Your task to perform on an android device: WHat are the new products by Samsung on eBay? Image 0: 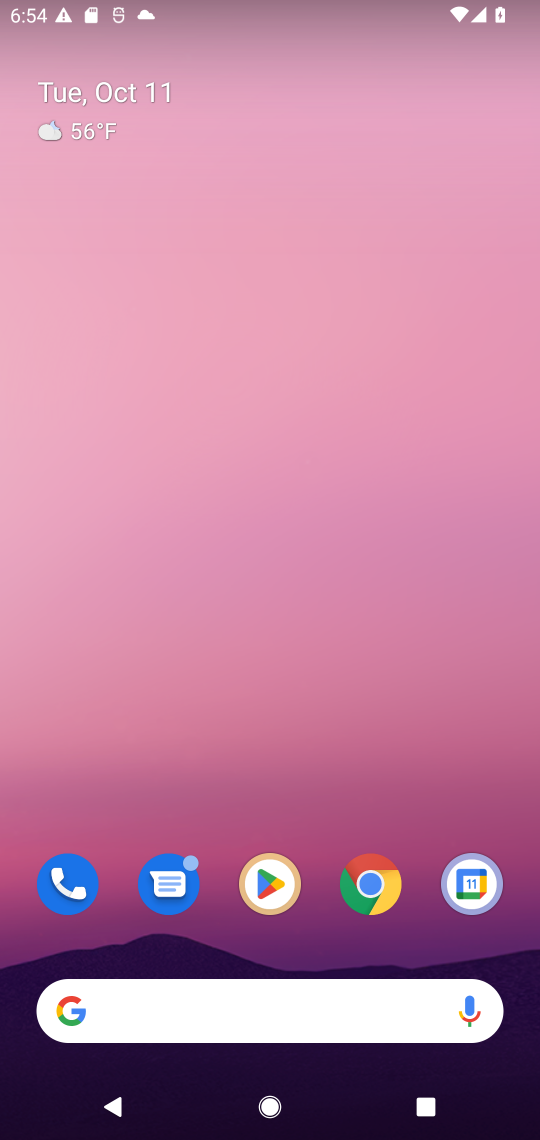
Step 0: drag from (328, 975) to (535, 334)
Your task to perform on an android device: WHat are the new products by Samsung on eBay? Image 1: 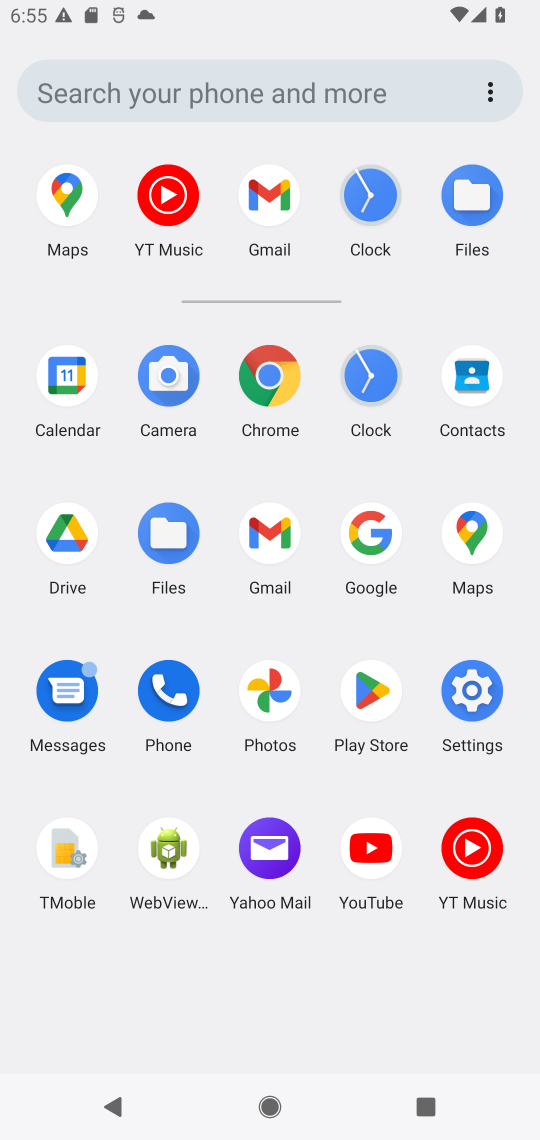
Step 1: click (366, 528)
Your task to perform on an android device: WHat are the new products by Samsung on eBay? Image 2: 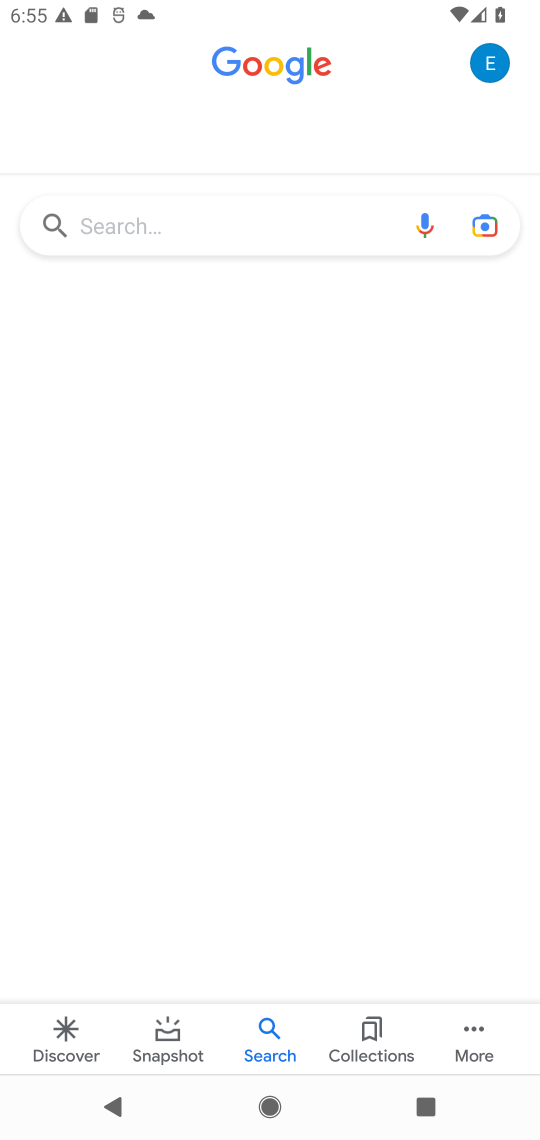
Step 2: click (269, 226)
Your task to perform on an android device: WHat are the new products by Samsung on eBay? Image 3: 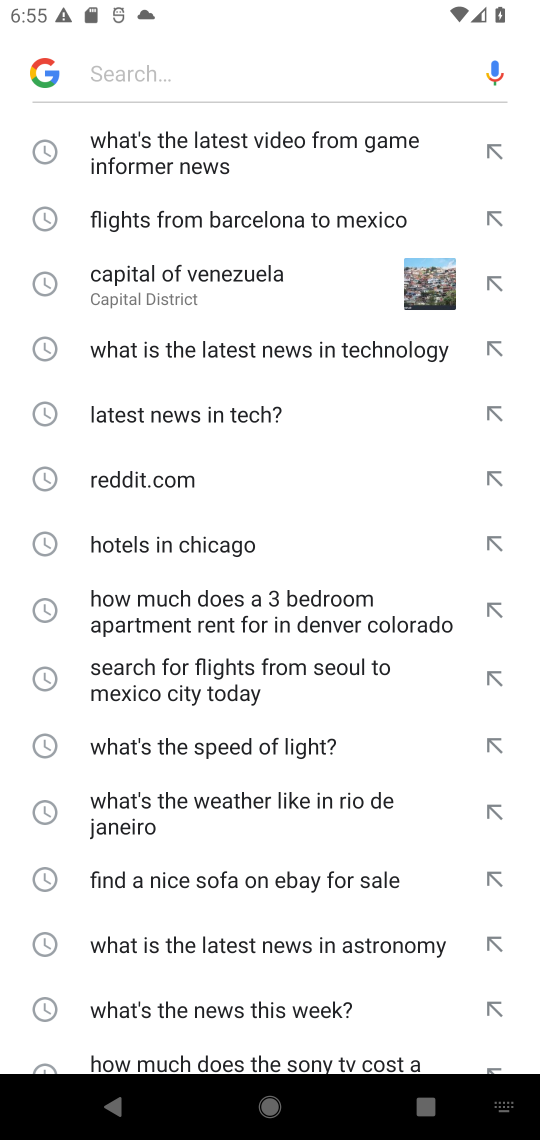
Step 3: type "WHat are the new products by Samsung on eBay?"
Your task to perform on an android device: WHat are the new products by Samsung on eBay? Image 4: 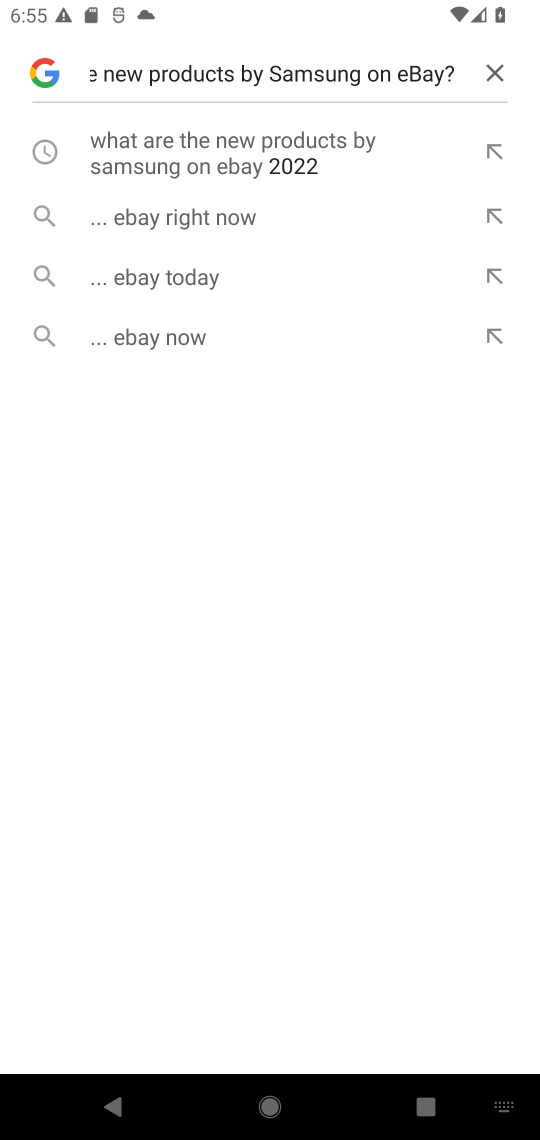
Step 4: click (272, 171)
Your task to perform on an android device: WHat are the new products by Samsung on eBay? Image 5: 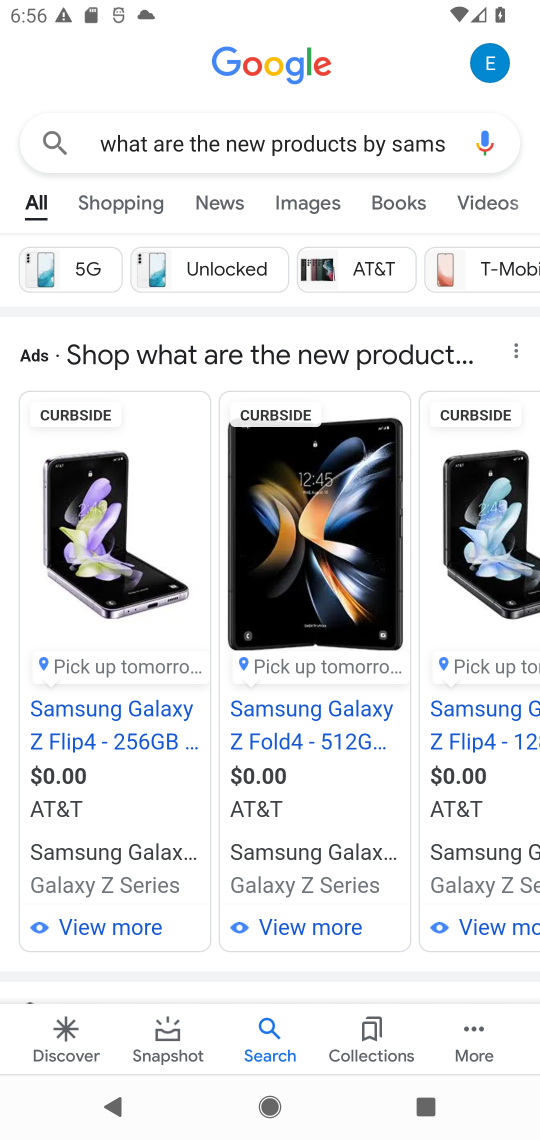
Step 5: task complete